Your task to perform on an android device: Search for sushi restaurants on Maps Image 0: 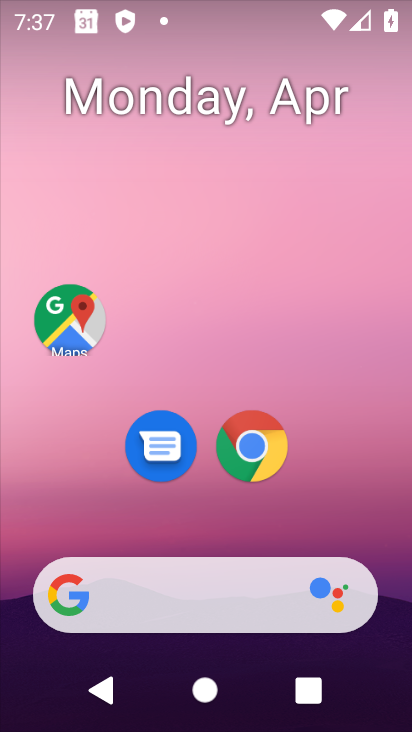
Step 0: drag from (378, 518) to (253, 43)
Your task to perform on an android device: Search for sushi restaurants on Maps Image 1: 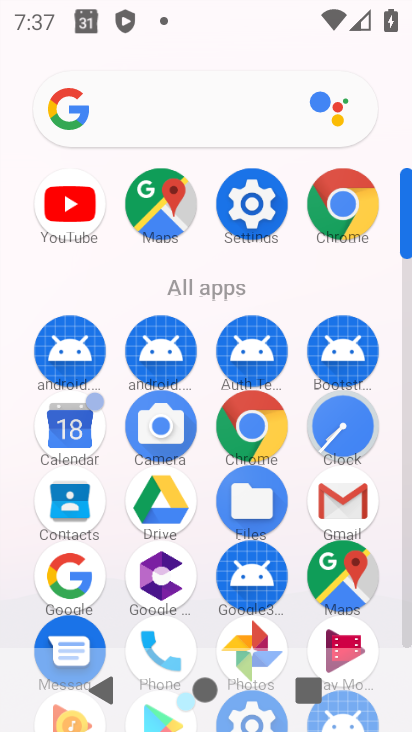
Step 1: drag from (17, 499) to (0, 257)
Your task to perform on an android device: Search for sushi restaurants on Maps Image 2: 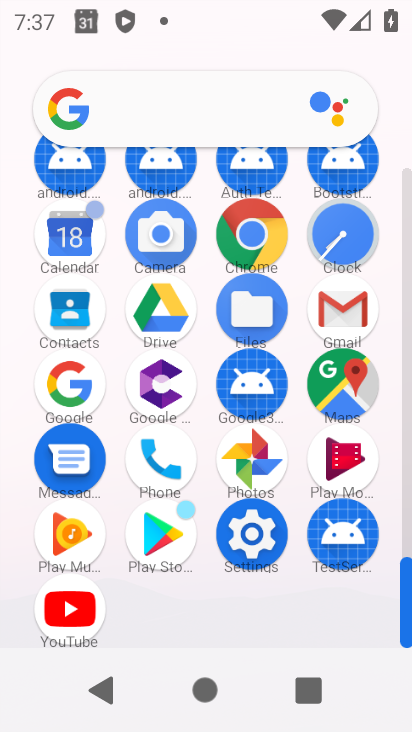
Step 2: click (340, 375)
Your task to perform on an android device: Search for sushi restaurants on Maps Image 3: 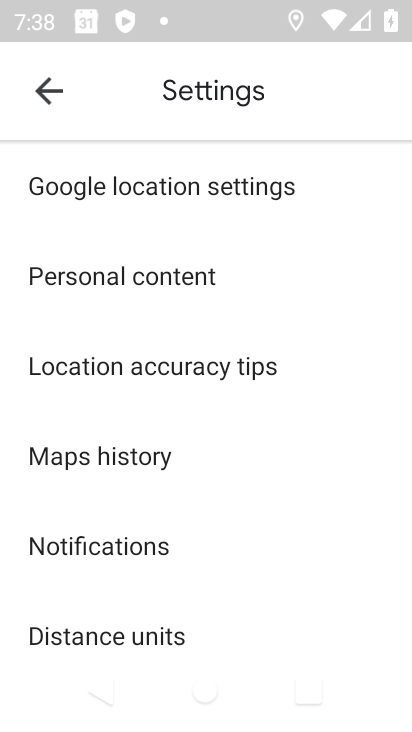
Step 3: press back button
Your task to perform on an android device: Search for sushi restaurants on Maps Image 4: 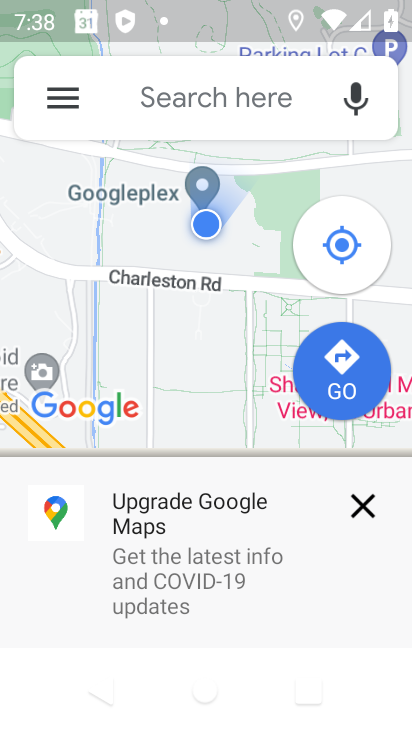
Step 4: click (240, 107)
Your task to perform on an android device: Search for sushi restaurants on Maps Image 5: 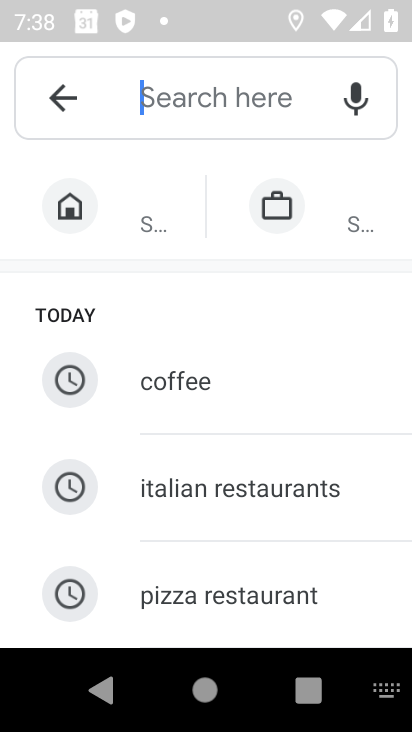
Step 5: drag from (240, 599) to (253, 382)
Your task to perform on an android device: Search for sushi restaurants on Maps Image 6: 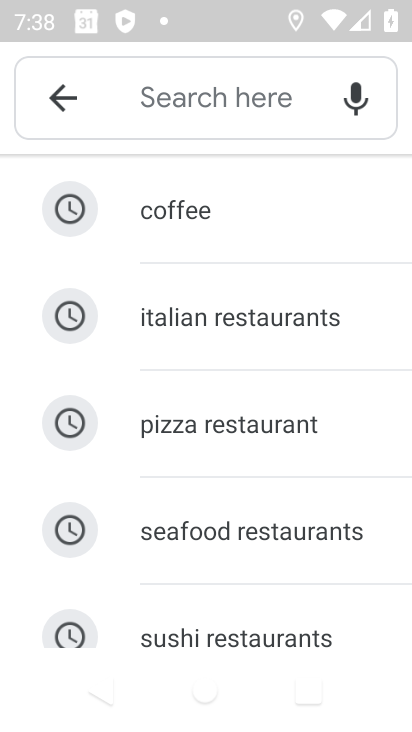
Step 6: click (247, 614)
Your task to perform on an android device: Search for sushi restaurants on Maps Image 7: 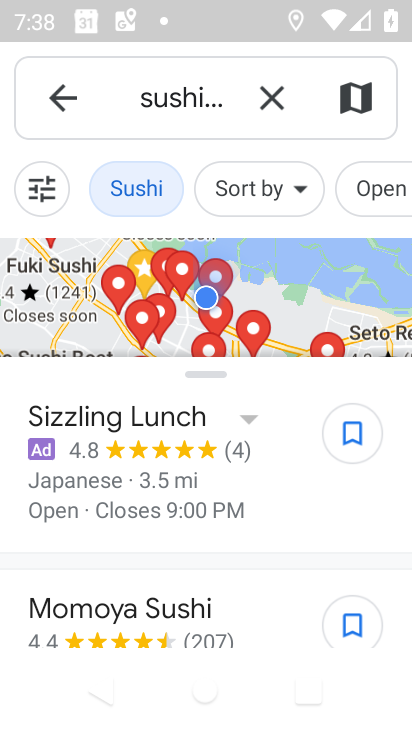
Step 7: task complete